Your task to perform on an android device: What's on my calendar today? Image 0: 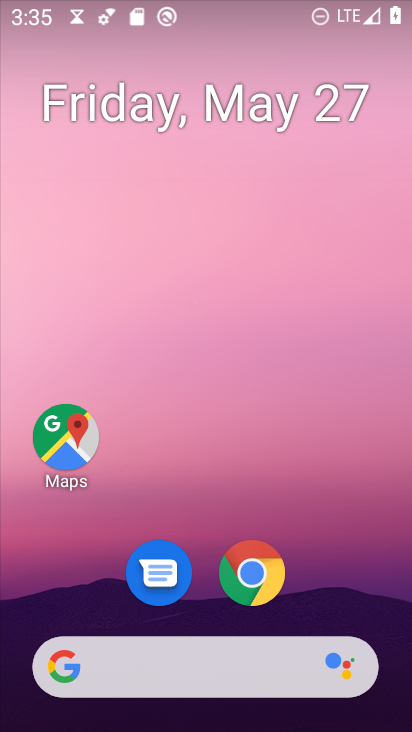
Step 0: drag from (323, 581) to (349, 28)
Your task to perform on an android device: What's on my calendar today? Image 1: 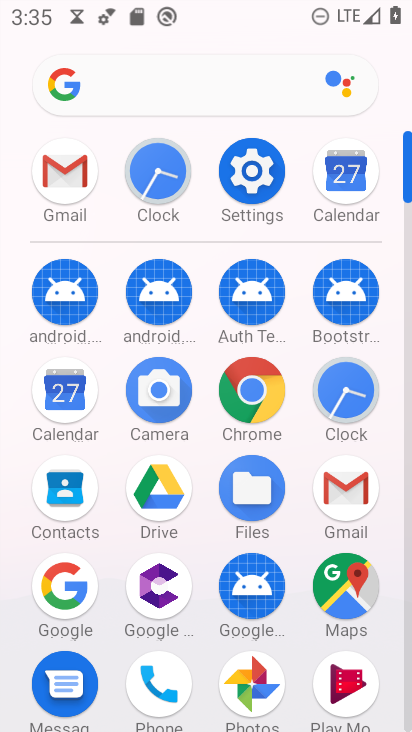
Step 1: click (341, 179)
Your task to perform on an android device: What's on my calendar today? Image 2: 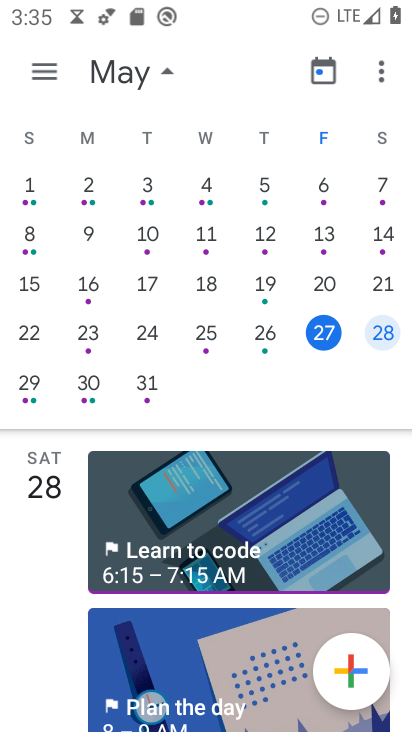
Step 2: click (323, 329)
Your task to perform on an android device: What's on my calendar today? Image 3: 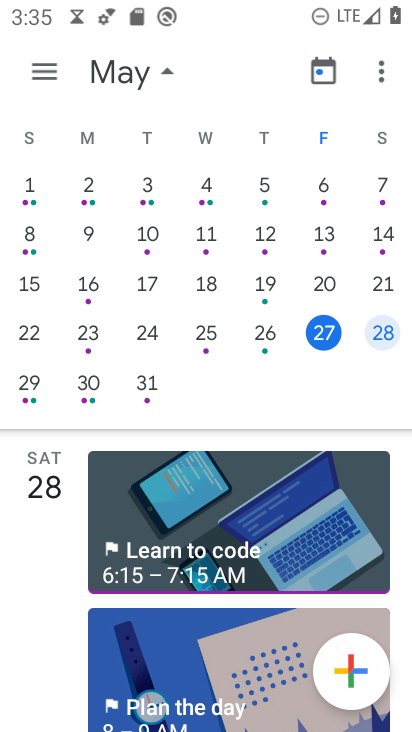
Step 3: click (326, 340)
Your task to perform on an android device: What's on my calendar today? Image 4: 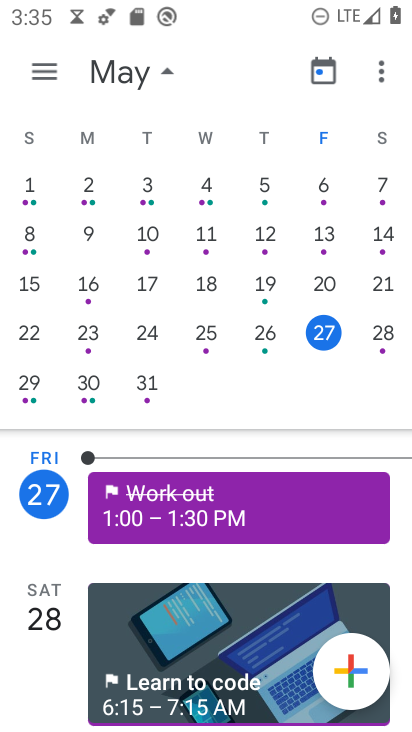
Step 4: task complete